Your task to perform on an android device: Open Youtube and go to the subscriptions tab Image 0: 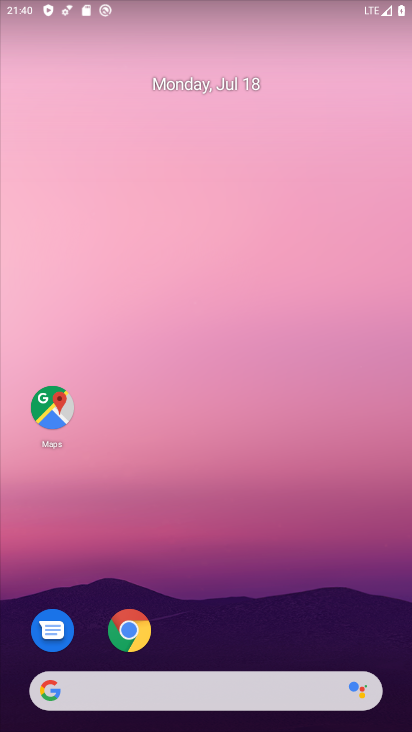
Step 0: click (112, 110)
Your task to perform on an android device: Open Youtube and go to the subscriptions tab Image 1: 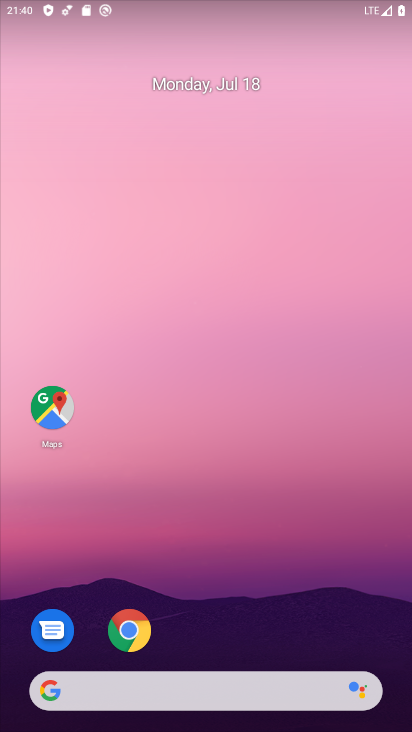
Step 1: drag from (236, 671) to (151, 127)
Your task to perform on an android device: Open Youtube and go to the subscriptions tab Image 2: 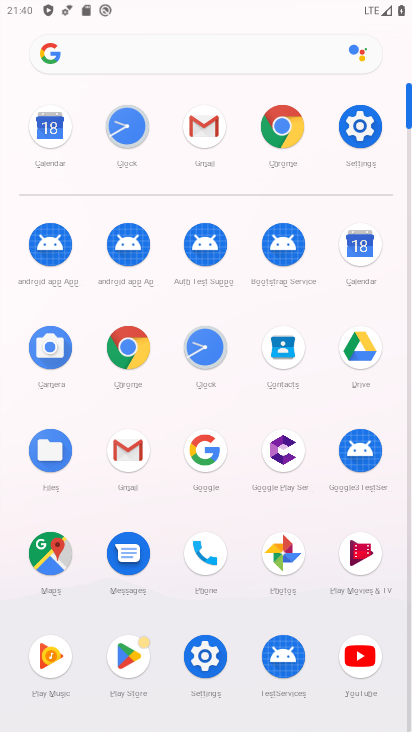
Step 2: click (346, 667)
Your task to perform on an android device: Open Youtube and go to the subscriptions tab Image 3: 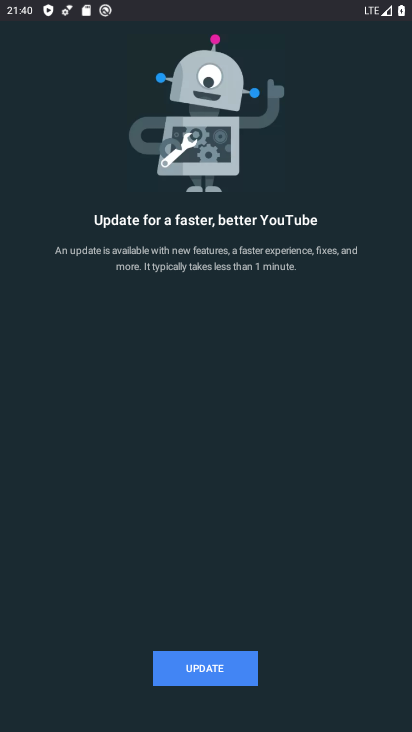
Step 3: task complete